Your task to perform on an android device: change your default location settings in chrome Image 0: 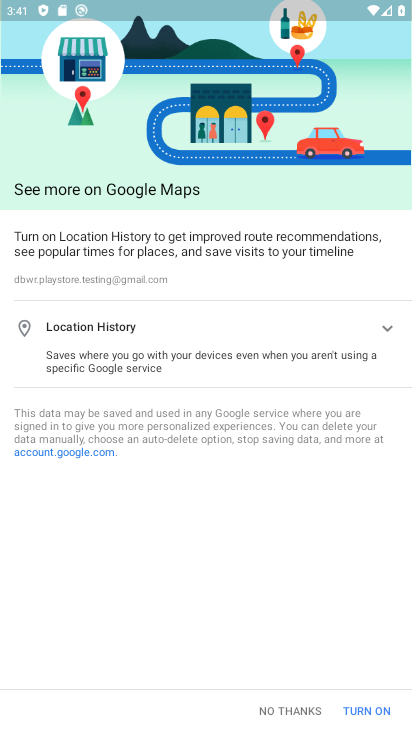
Step 0: press back button
Your task to perform on an android device: change your default location settings in chrome Image 1: 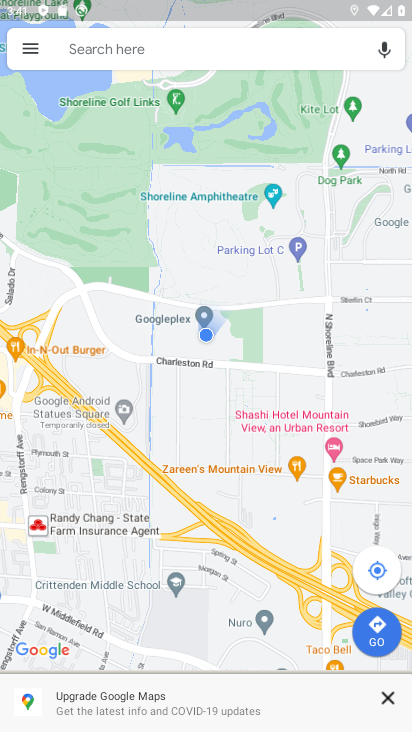
Step 1: press back button
Your task to perform on an android device: change your default location settings in chrome Image 2: 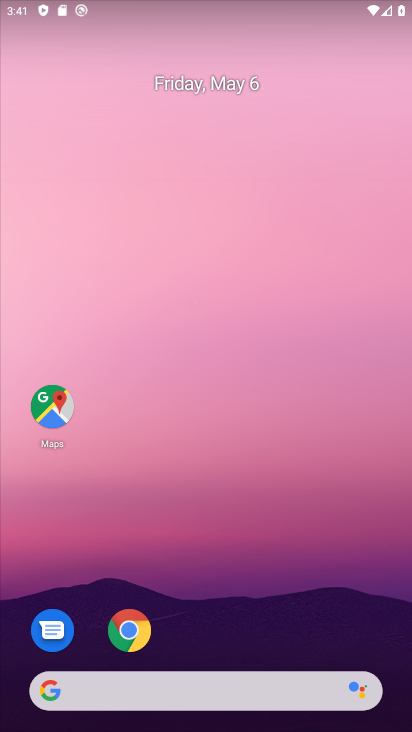
Step 2: click (118, 630)
Your task to perform on an android device: change your default location settings in chrome Image 3: 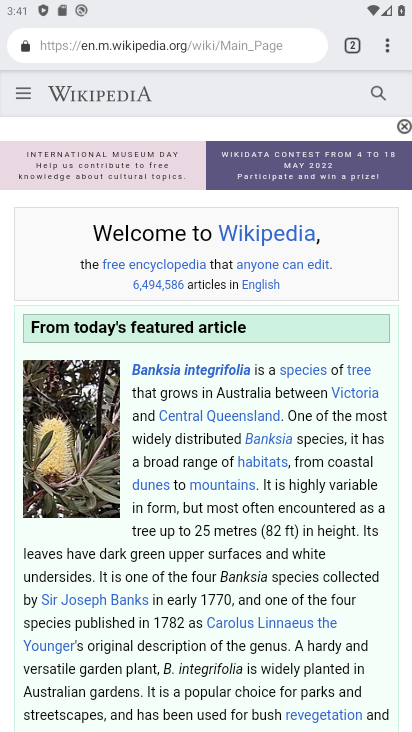
Step 3: click (383, 44)
Your task to perform on an android device: change your default location settings in chrome Image 4: 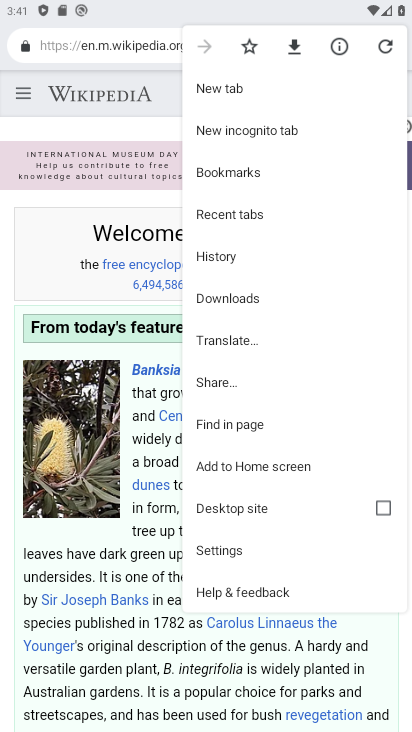
Step 4: click (250, 550)
Your task to perform on an android device: change your default location settings in chrome Image 5: 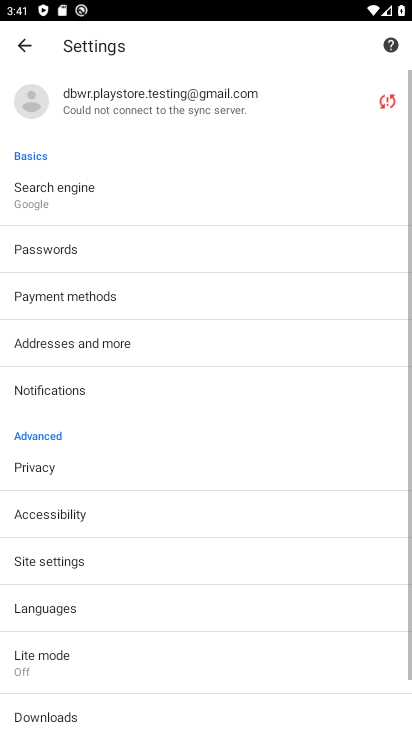
Step 5: click (79, 193)
Your task to perform on an android device: change your default location settings in chrome Image 6: 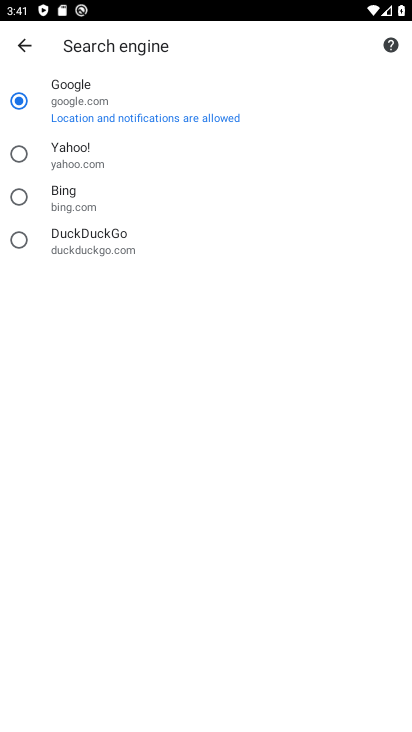
Step 6: click (76, 156)
Your task to perform on an android device: change your default location settings in chrome Image 7: 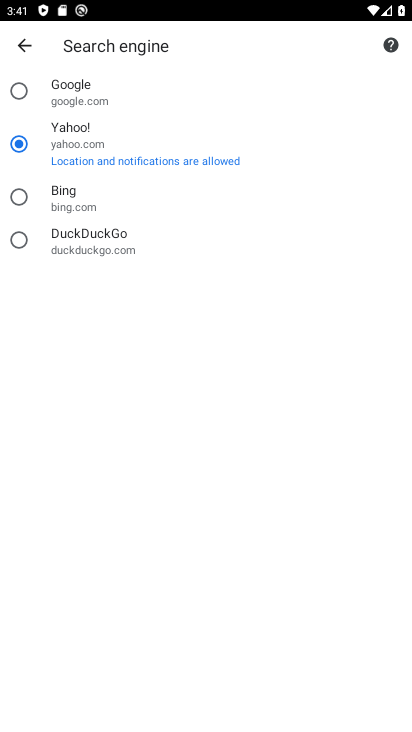
Step 7: task complete